Your task to perform on an android device: Is it going to rain this weekend? Image 0: 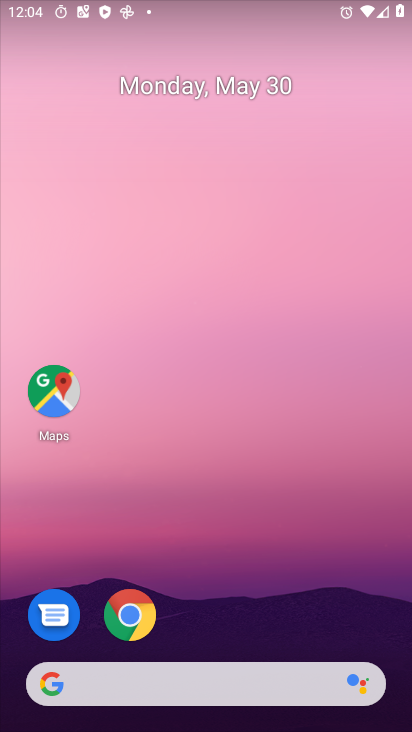
Step 0: drag from (201, 626) to (217, 117)
Your task to perform on an android device: Is it going to rain this weekend? Image 1: 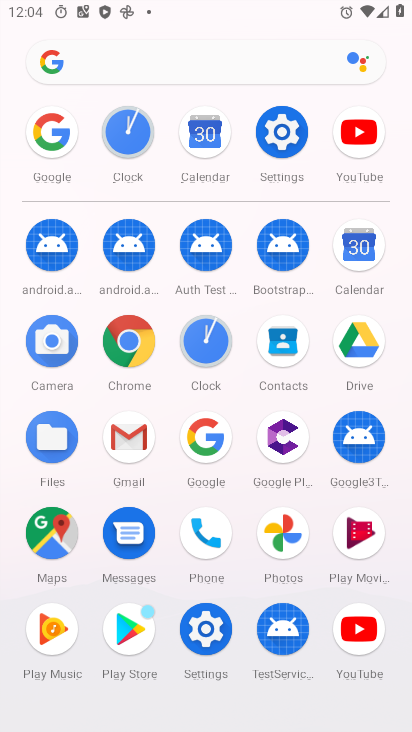
Step 1: click (216, 436)
Your task to perform on an android device: Is it going to rain this weekend? Image 2: 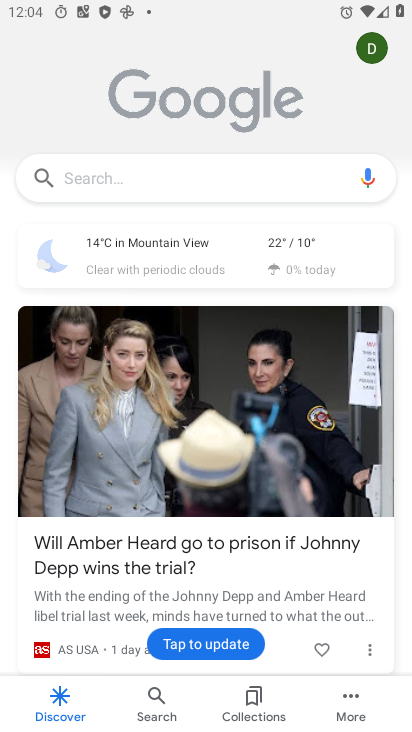
Step 2: click (188, 168)
Your task to perform on an android device: Is it going to rain this weekend? Image 3: 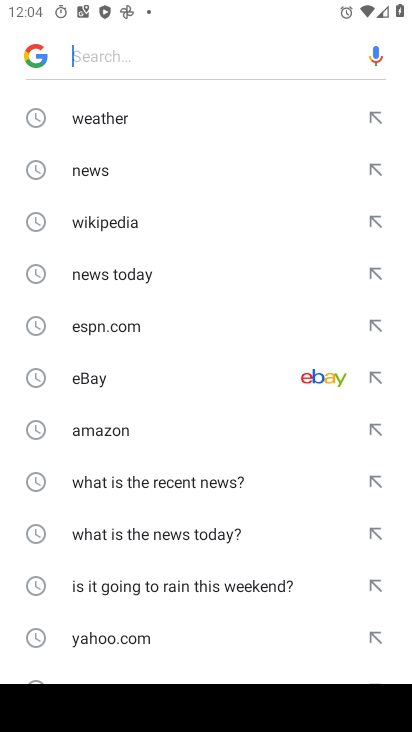
Step 3: click (186, 585)
Your task to perform on an android device: Is it going to rain this weekend? Image 4: 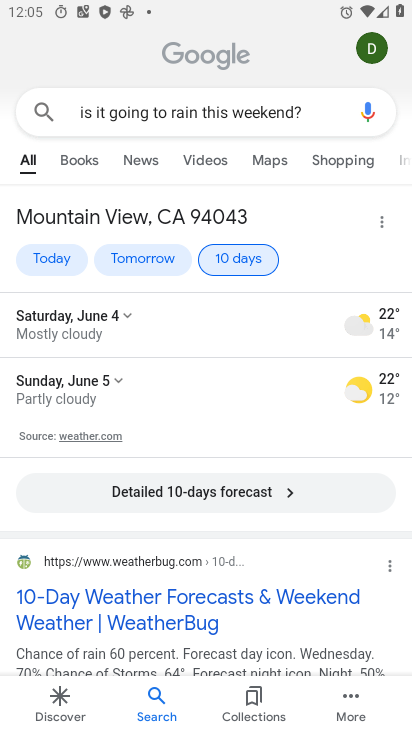
Step 4: task complete